Your task to perform on an android device: Where can I buy a nice beach towel? Image 0: 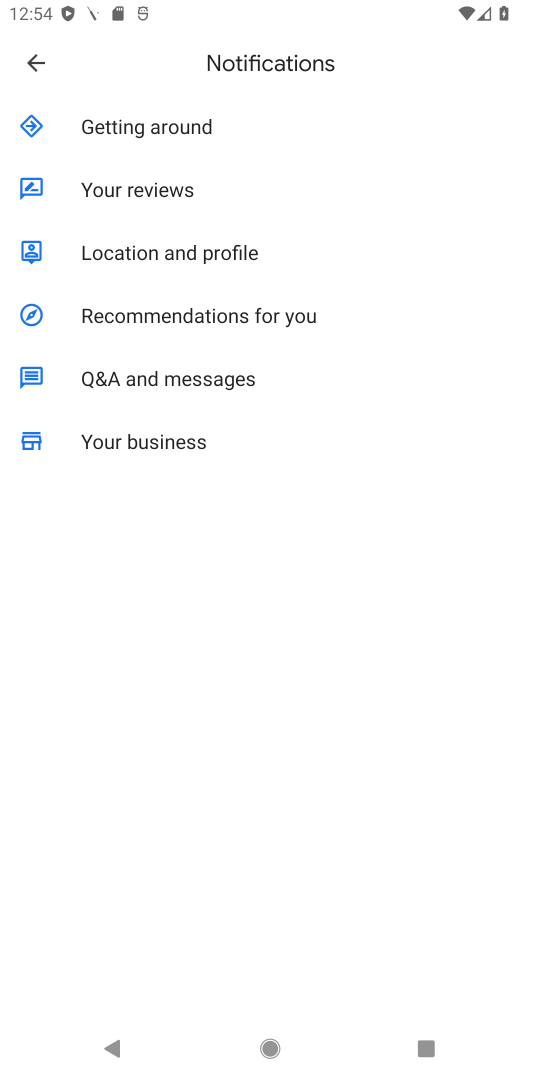
Step 0: press home button
Your task to perform on an android device: Where can I buy a nice beach towel? Image 1: 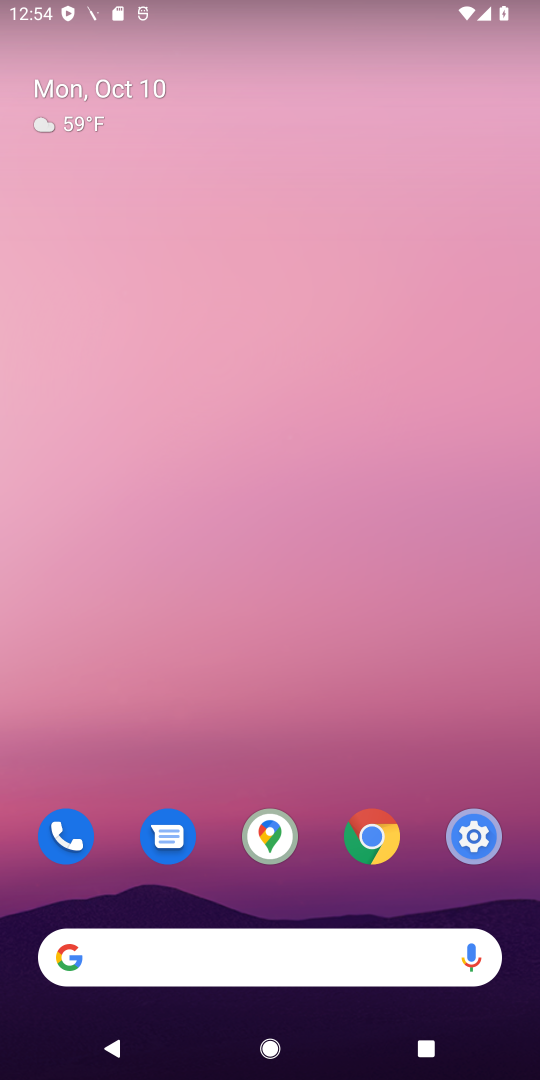
Step 1: click (362, 828)
Your task to perform on an android device: Where can I buy a nice beach towel? Image 2: 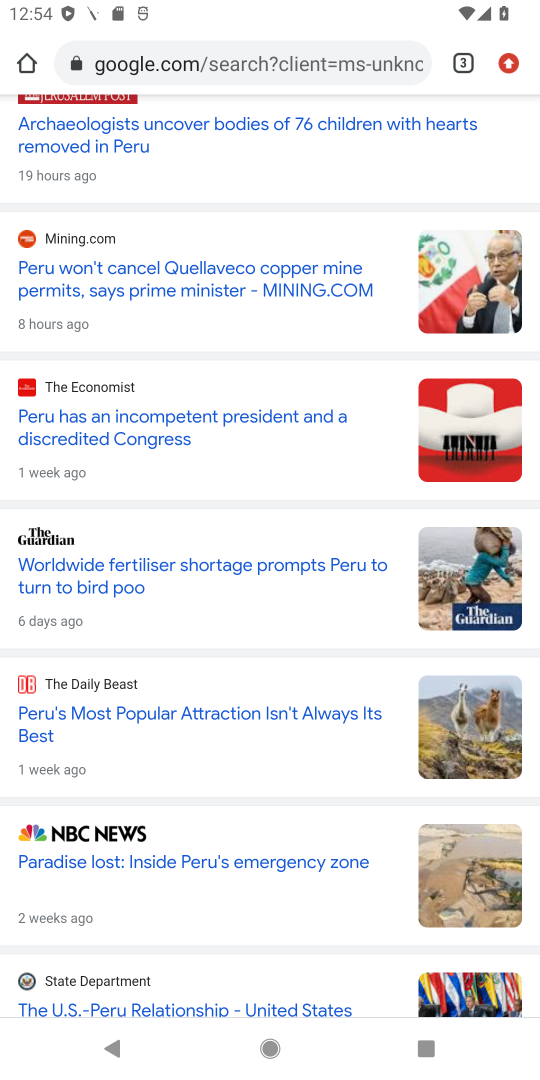
Step 2: click (246, 66)
Your task to perform on an android device: Where can I buy a nice beach towel? Image 3: 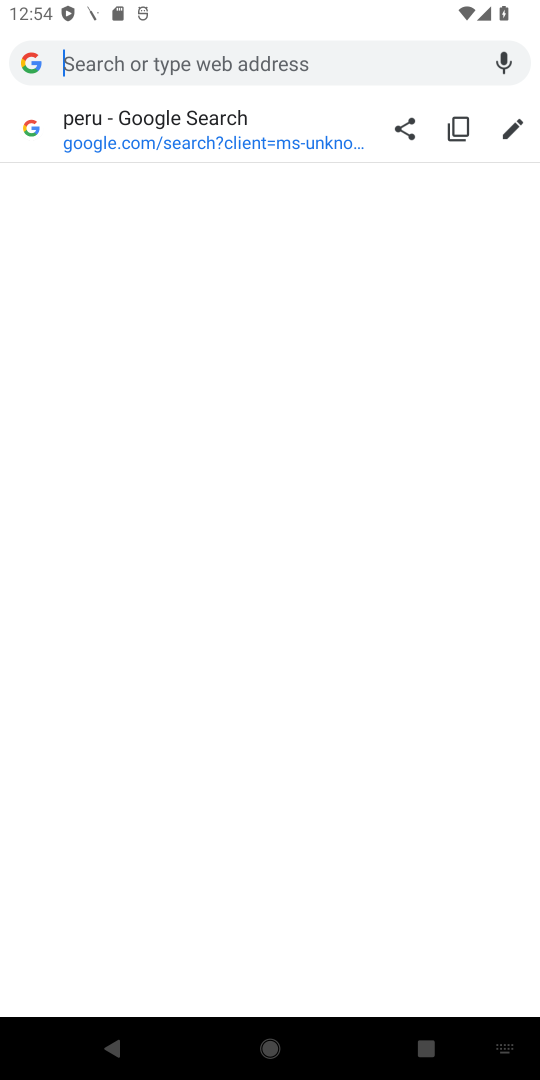
Step 3: type "Where can I buy a nice beach towel?"
Your task to perform on an android device: Where can I buy a nice beach towel? Image 4: 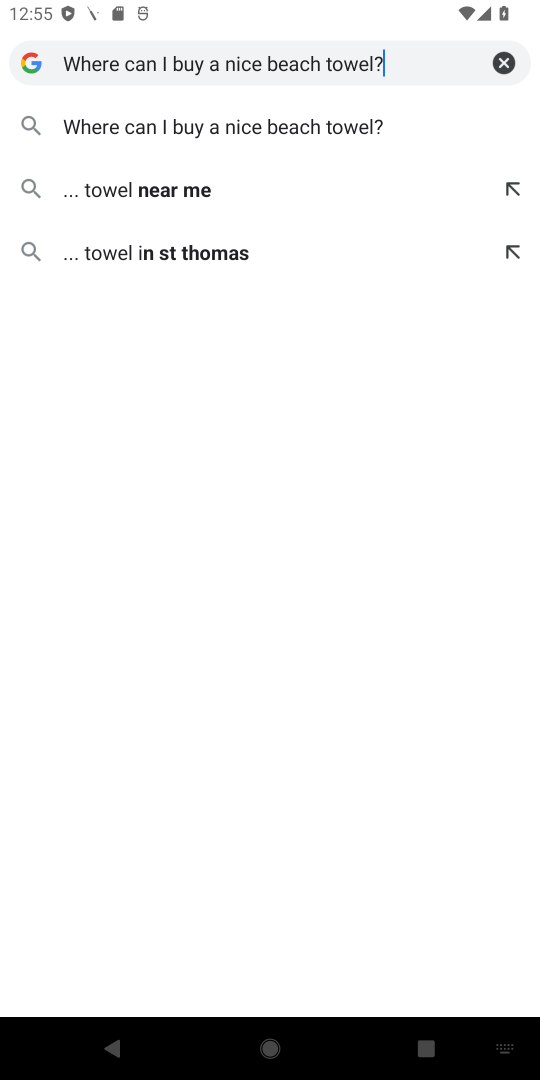
Step 4: click (229, 126)
Your task to perform on an android device: Where can I buy a nice beach towel? Image 5: 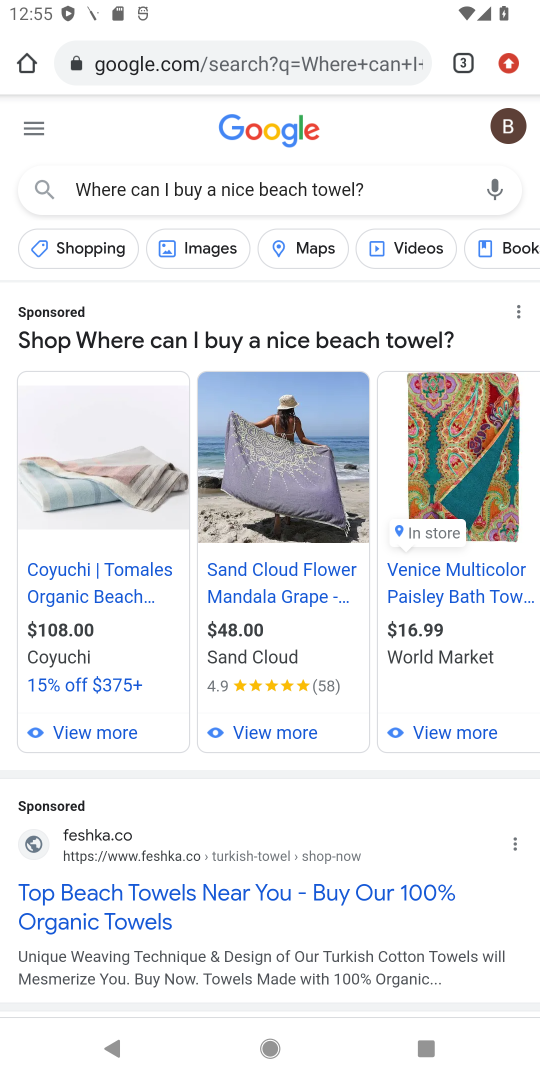
Step 5: task complete